Your task to perform on an android device: show emergency info Image 0: 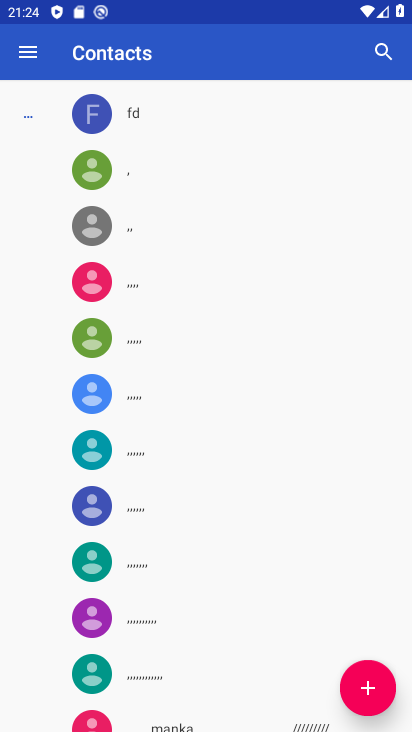
Step 0: press home button
Your task to perform on an android device: show emergency info Image 1: 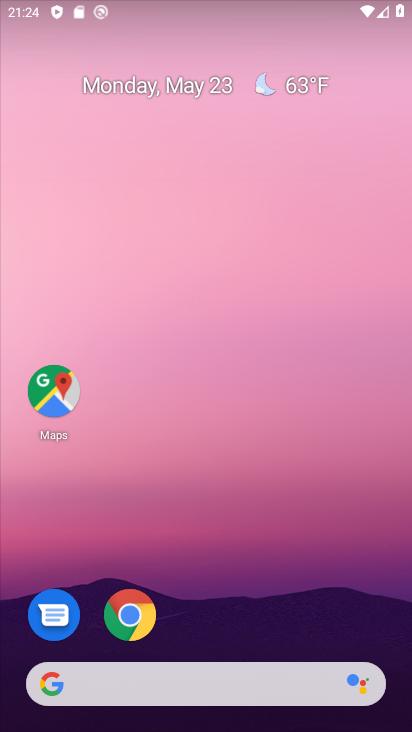
Step 1: drag from (243, 522) to (252, 49)
Your task to perform on an android device: show emergency info Image 2: 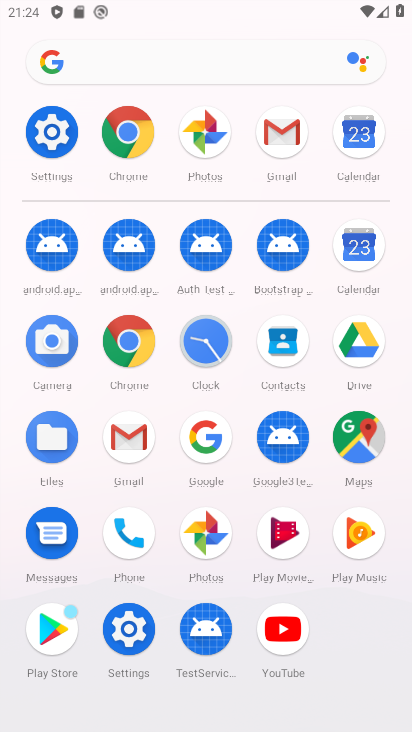
Step 2: click (56, 132)
Your task to perform on an android device: show emergency info Image 3: 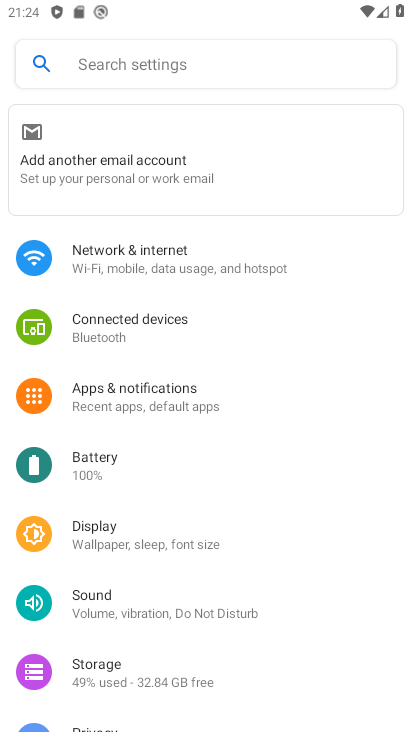
Step 3: drag from (238, 592) to (228, 119)
Your task to perform on an android device: show emergency info Image 4: 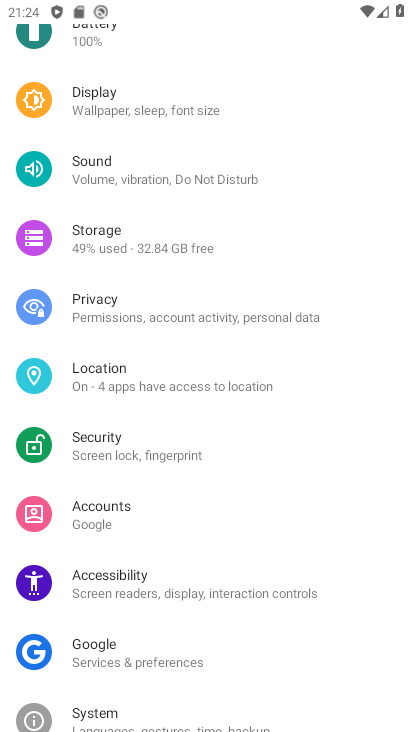
Step 4: drag from (249, 607) to (235, 117)
Your task to perform on an android device: show emergency info Image 5: 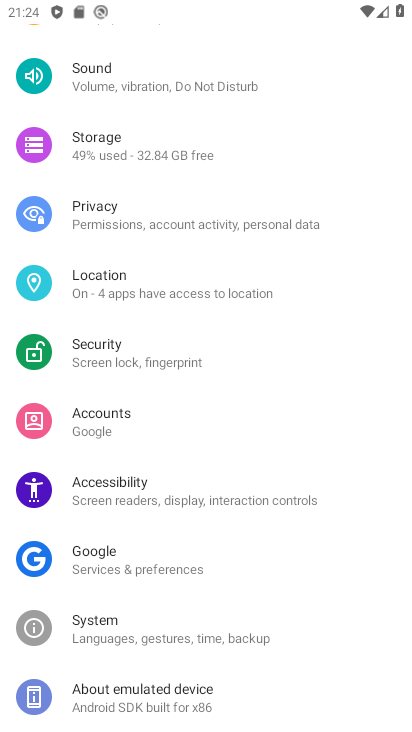
Step 5: click (176, 691)
Your task to perform on an android device: show emergency info Image 6: 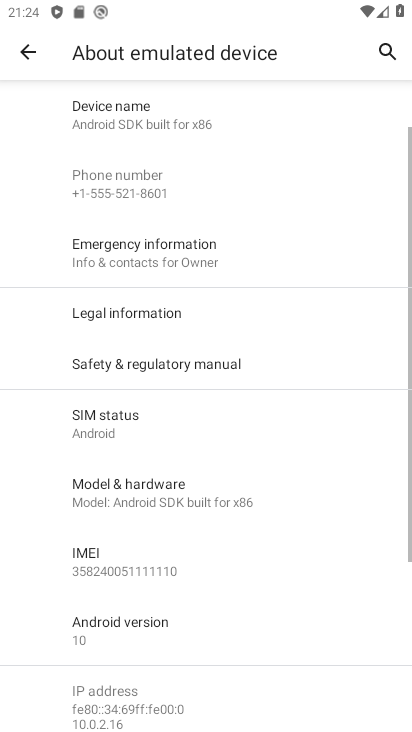
Step 6: click (172, 237)
Your task to perform on an android device: show emergency info Image 7: 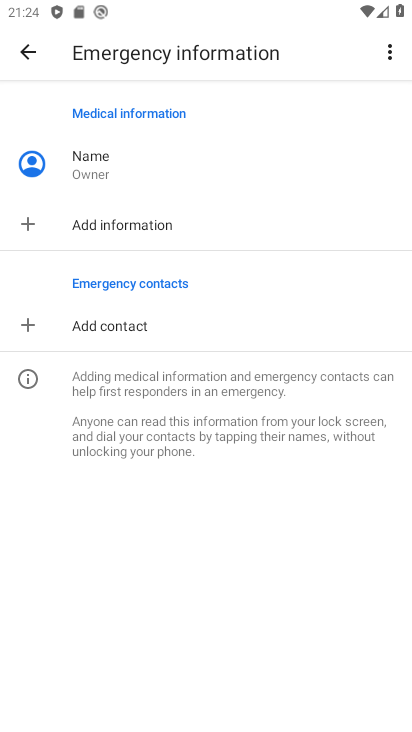
Step 7: task complete